Your task to perform on an android device: Go to wifi settings Image 0: 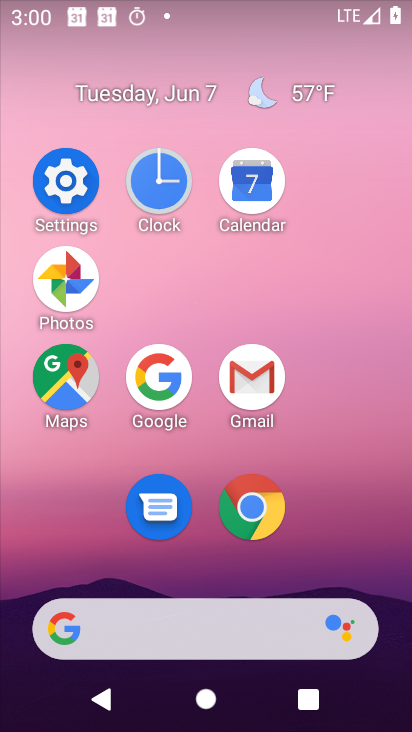
Step 0: click (82, 163)
Your task to perform on an android device: Go to wifi settings Image 1: 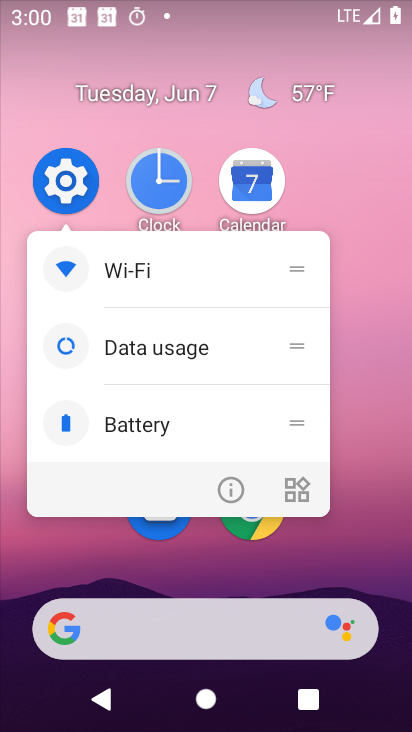
Step 1: click (81, 163)
Your task to perform on an android device: Go to wifi settings Image 2: 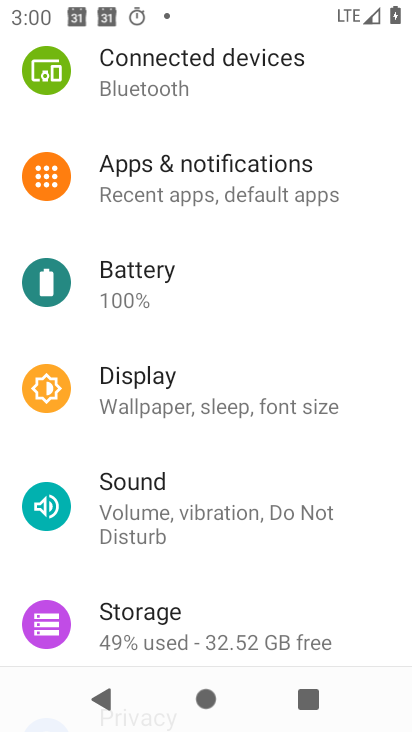
Step 2: drag from (293, 191) to (261, 530)
Your task to perform on an android device: Go to wifi settings Image 3: 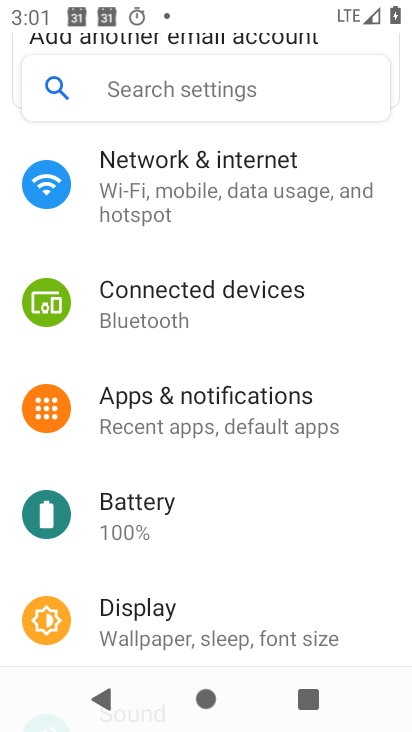
Step 3: click (218, 187)
Your task to perform on an android device: Go to wifi settings Image 4: 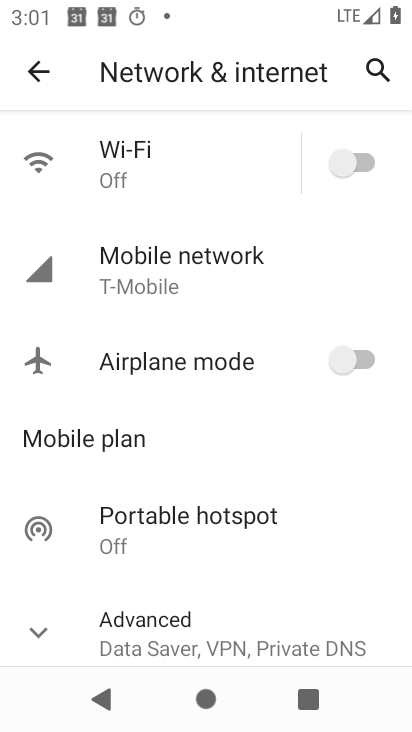
Step 4: click (330, 156)
Your task to perform on an android device: Go to wifi settings Image 5: 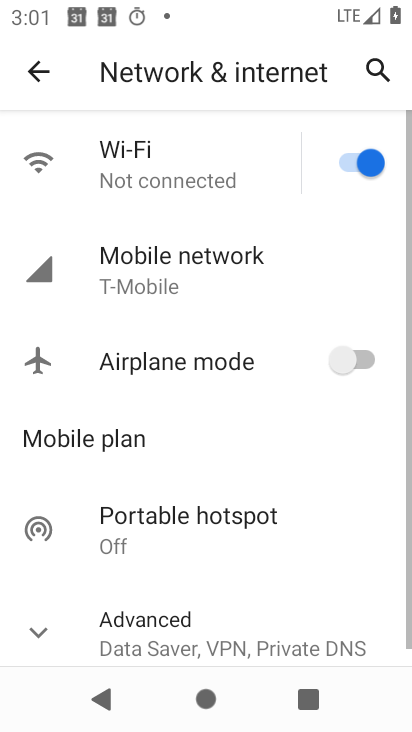
Step 5: click (129, 157)
Your task to perform on an android device: Go to wifi settings Image 6: 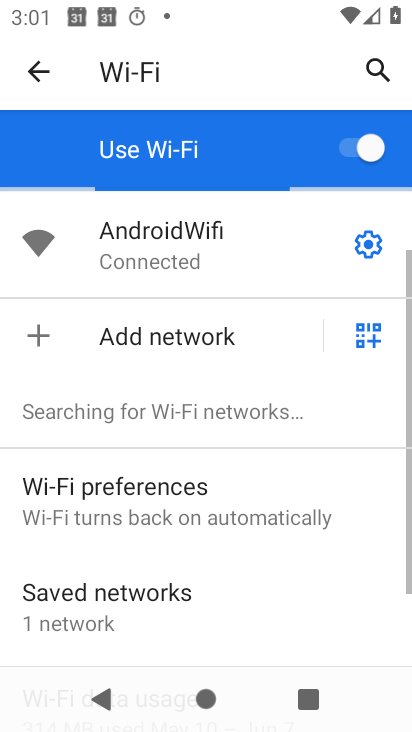
Step 6: click (370, 241)
Your task to perform on an android device: Go to wifi settings Image 7: 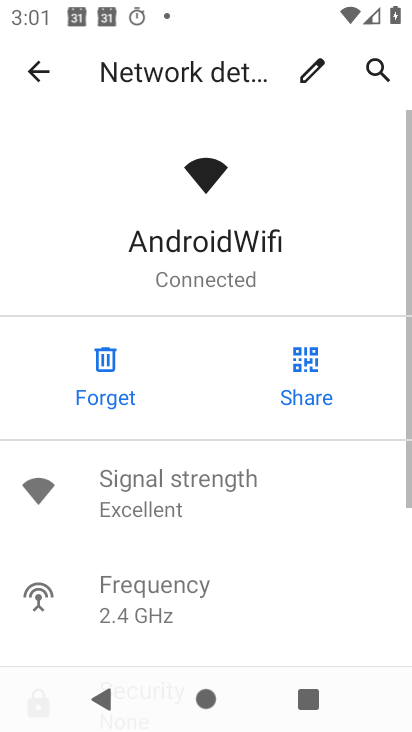
Step 7: task complete